Your task to perform on an android device: set an alarm Image 0: 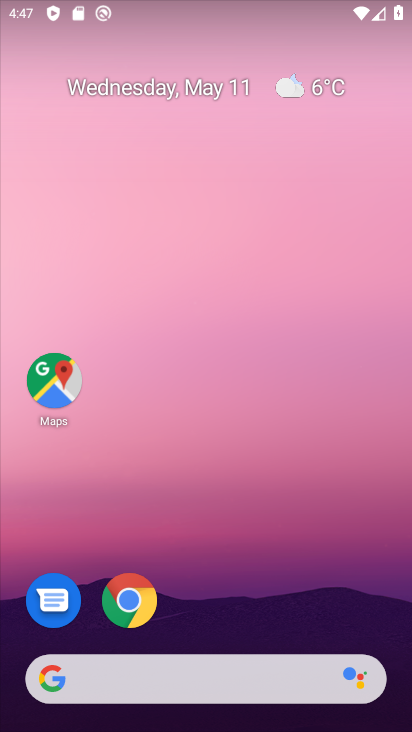
Step 0: drag from (243, 452) to (257, 7)
Your task to perform on an android device: set an alarm Image 1: 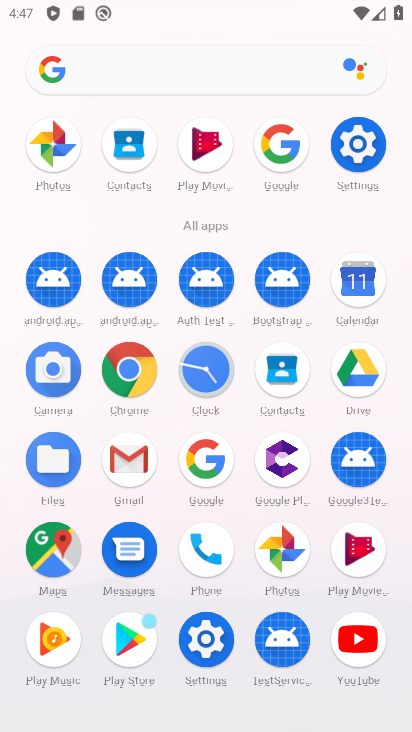
Step 1: click (219, 372)
Your task to perform on an android device: set an alarm Image 2: 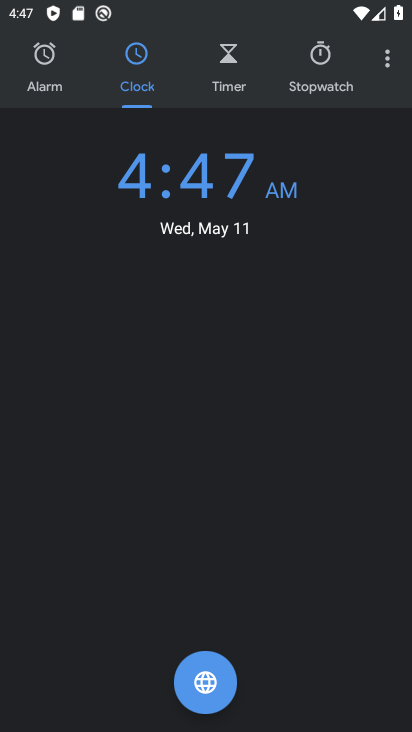
Step 2: click (24, 80)
Your task to perform on an android device: set an alarm Image 3: 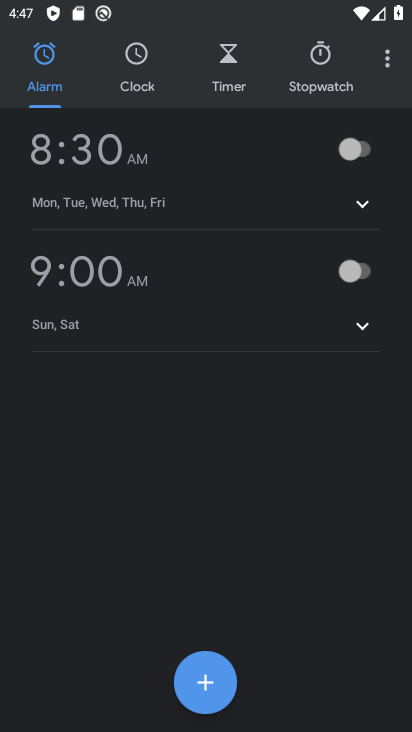
Step 3: click (215, 701)
Your task to perform on an android device: set an alarm Image 4: 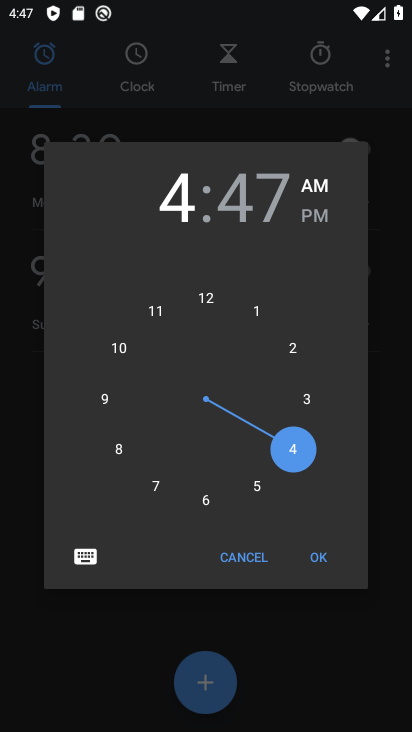
Step 4: click (315, 556)
Your task to perform on an android device: set an alarm Image 5: 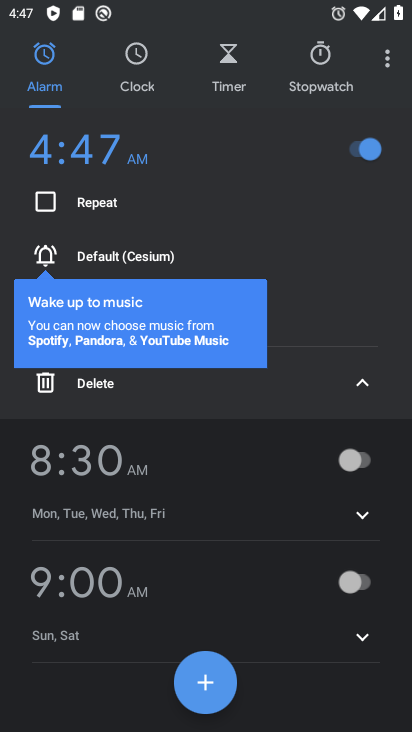
Step 5: task complete